Your task to perform on an android device: Open Wikipedia Image 0: 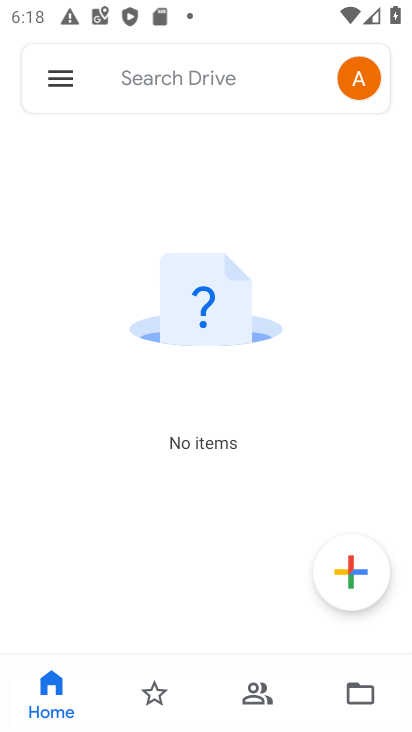
Step 0: press home button
Your task to perform on an android device: Open Wikipedia Image 1: 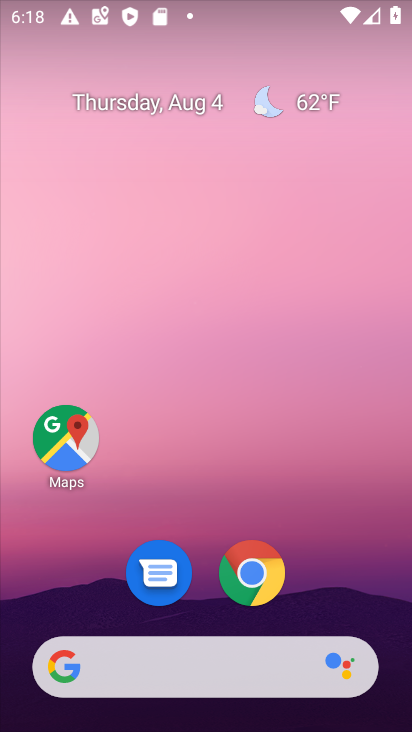
Step 1: click (62, 671)
Your task to perform on an android device: Open Wikipedia Image 2: 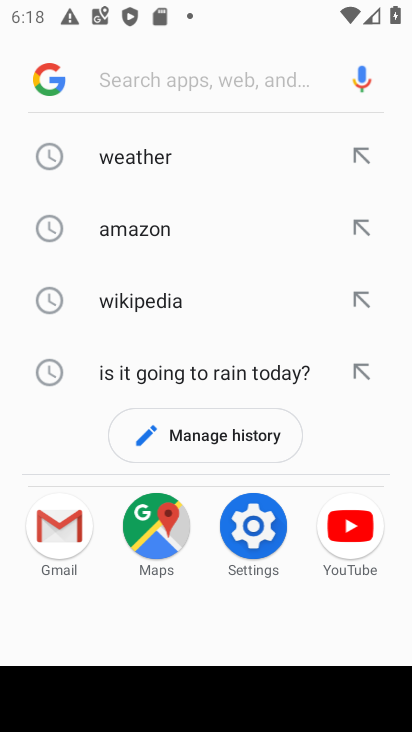
Step 2: click (130, 301)
Your task to perform on an android device: Open Wikipedia Image 3: 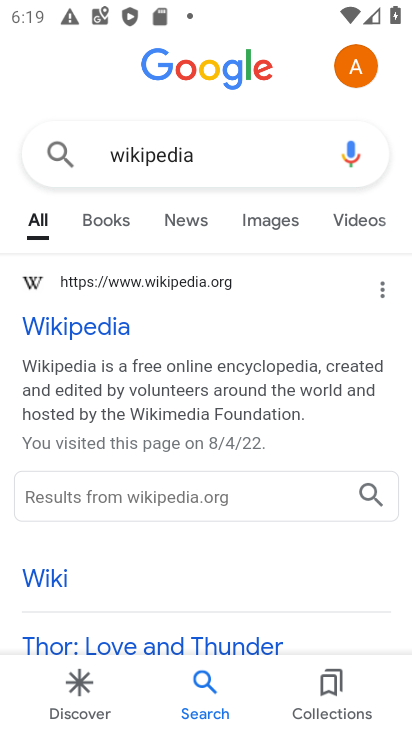
Step 3: click (83, 329)
Your task to perform on an android device: Open Wikipedia Image 4: 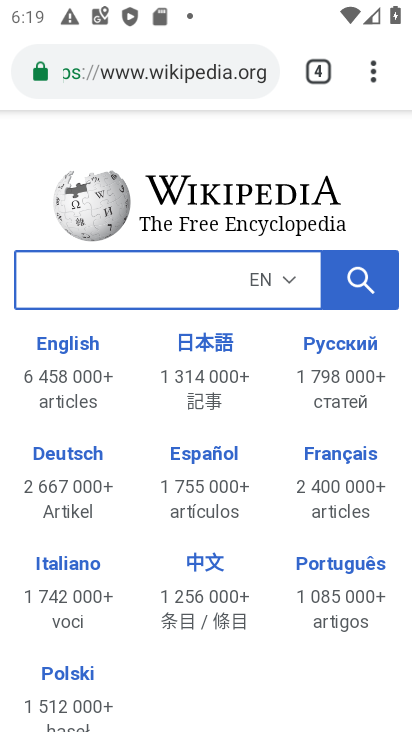
Step 4: task complete